Your task to perform on an android device: Go to calendar. Show me events next week Image 0: 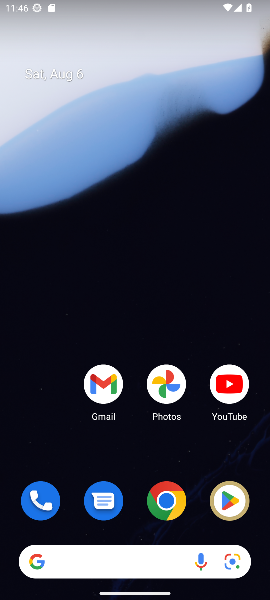
Step 0: drag from (124, 491) to (29, 98)
Your task to perform on an android device: Go to calendar. Show me events next week Image 1: 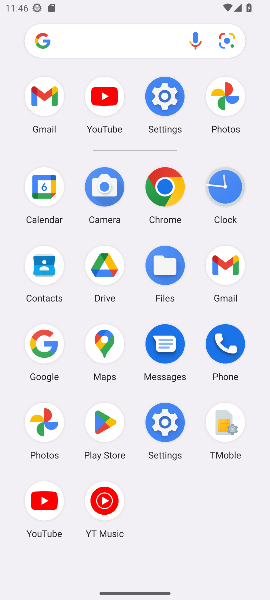
Step 1: click (52, 199)
Your task to perform on an android device: Go to calendar. Show me events next week Image 2: 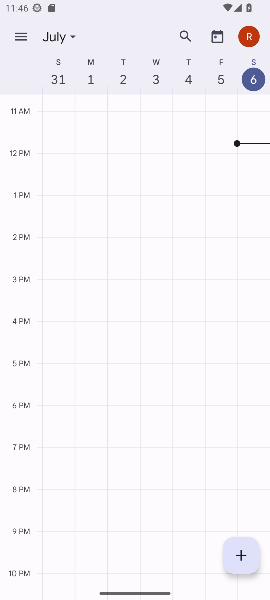
Step 2: click (61, 34)
Your task to perform on an android device: Go to calendar. Show me events next week Image 3: 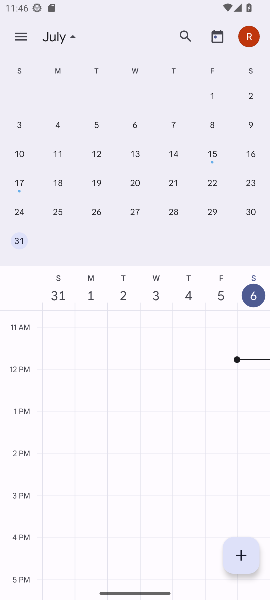
Step 3: drag from (259, 143) to (0, 161)
Your task to perform on an android device: Go to calendar. Show me events next week Image 4: 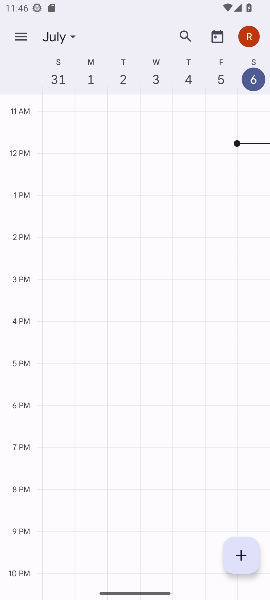
Step 4: click (52, 35)
Your task to perform on an android device: Go to calendar. Show me events next week Image 5: 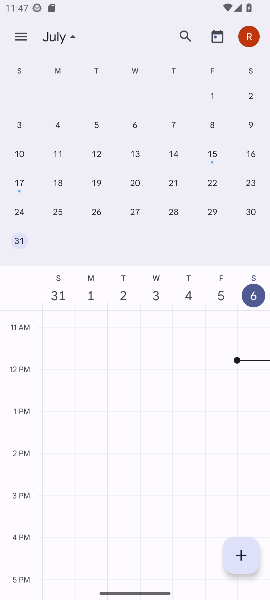
Step 5: drag from (219, 138) to (54, 188)
Your task to perform on an android device: Go to calendar. Show me events next week Image 6: 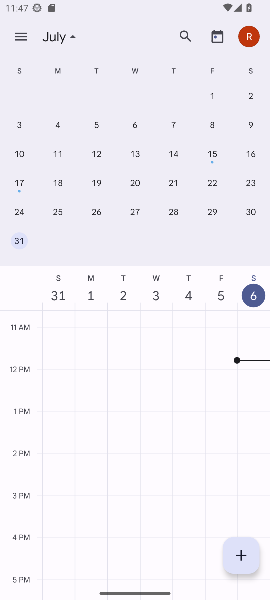
Step 6: drag from (230, 145) to (8, 143)
Your task to perform on an android device: Go to calendar. Show me events next week Image 7: 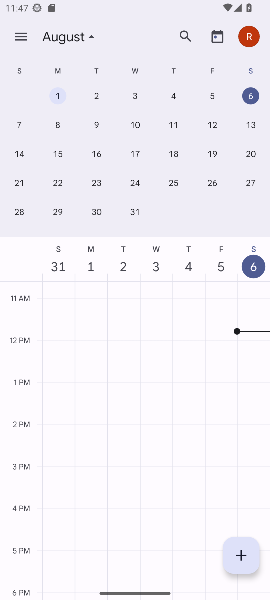
Step 7: click (14, 118)
Your task to perform on an android device: Go to calendar. Show me events next week Image 8: 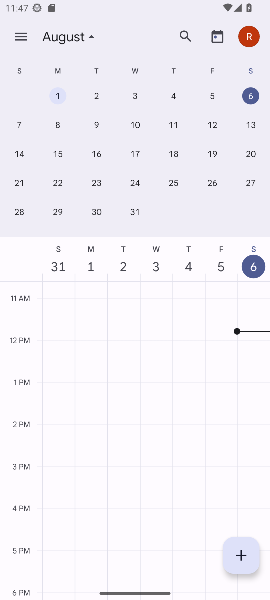
Step 8: click (14, 118)
Your task to perform on an android device: Go to calendar. Show me events next week Image 9: 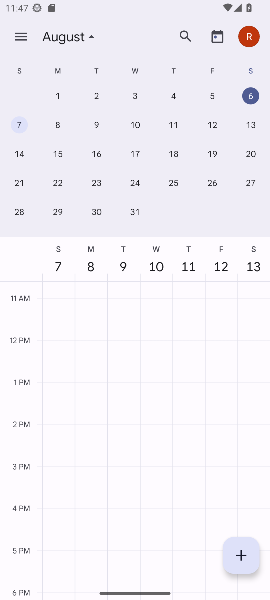
Step 9: task complete